Your task to perform on an android device: open chrome and create a bookmark for the current page Image 0: 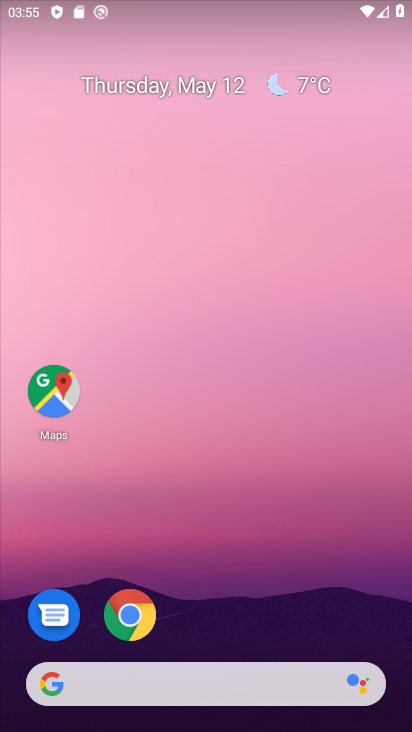
Step 0: click (143, 618)
Your task to perform on an android device: open chrome and create a bookmark for the current page Image 1: 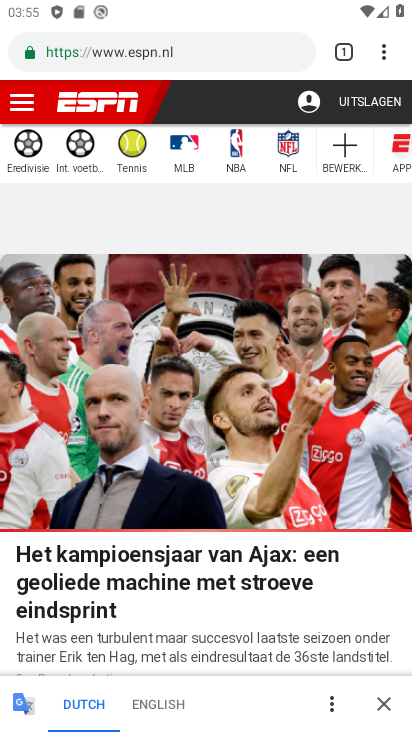
Step 1: click (391, 60)
Your task to perform on an android device: open chrome and create a bookmark for the current page Image 2: 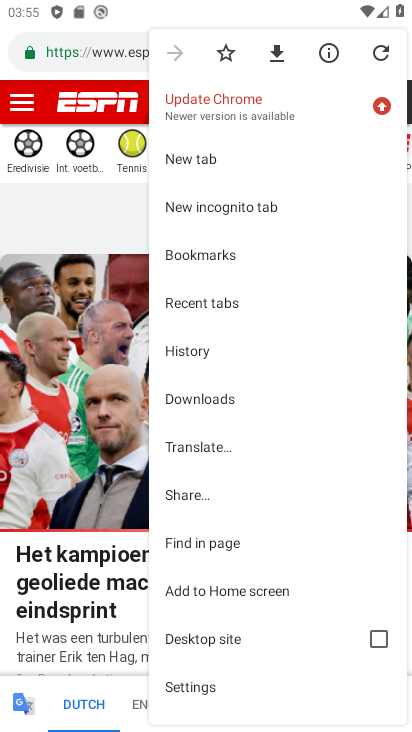
Step 2: click (227, 49)
Your task to perform on an android device: open chrome and create a bookmark for the current page Image 3: 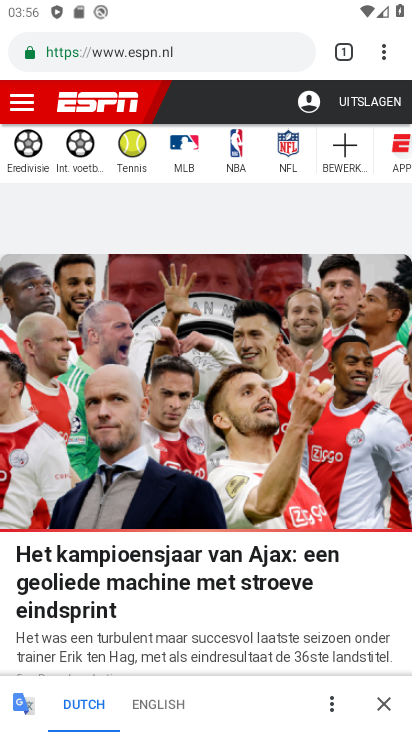
Step 3: task complete